Your task to perform on an android device: install app "Messenger Lite" Image 0: 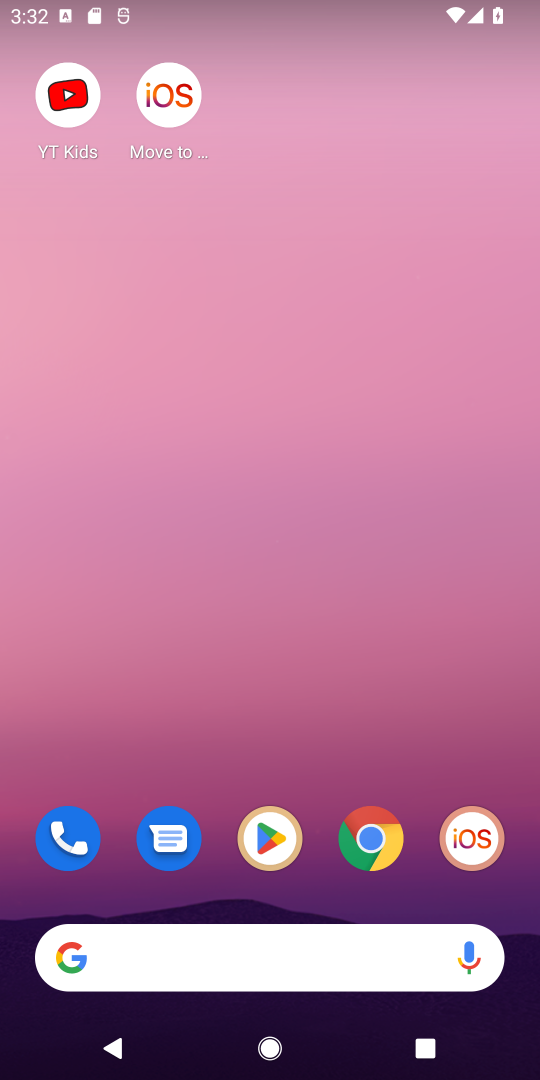
Step 0: press home button
Your task to perform on an android device: install app "Messenger Lite" Image 1: 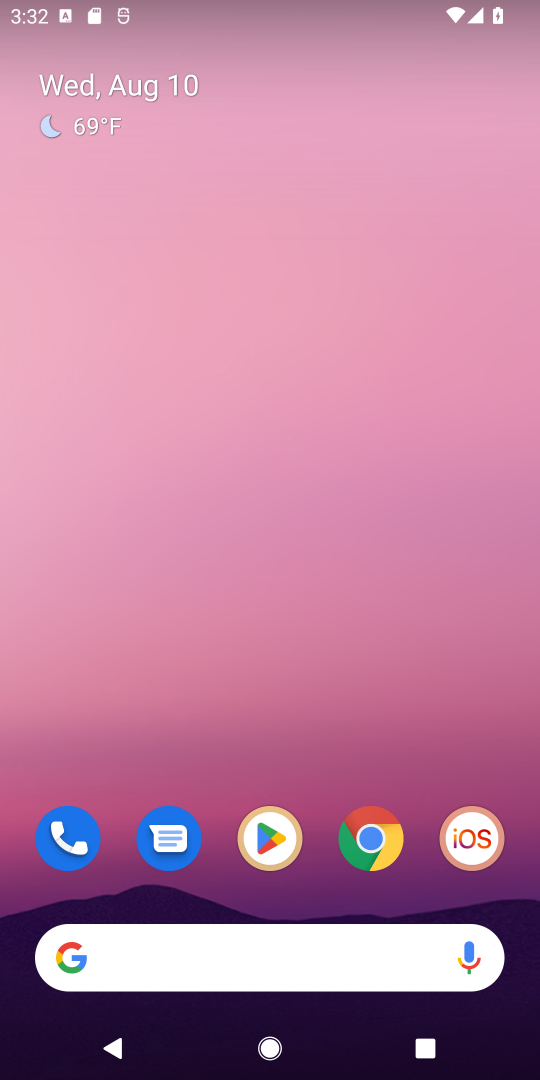
Step 1: click (270, 840)
Your task to perform on an android device: install app "Messenger Lite" Image 2: 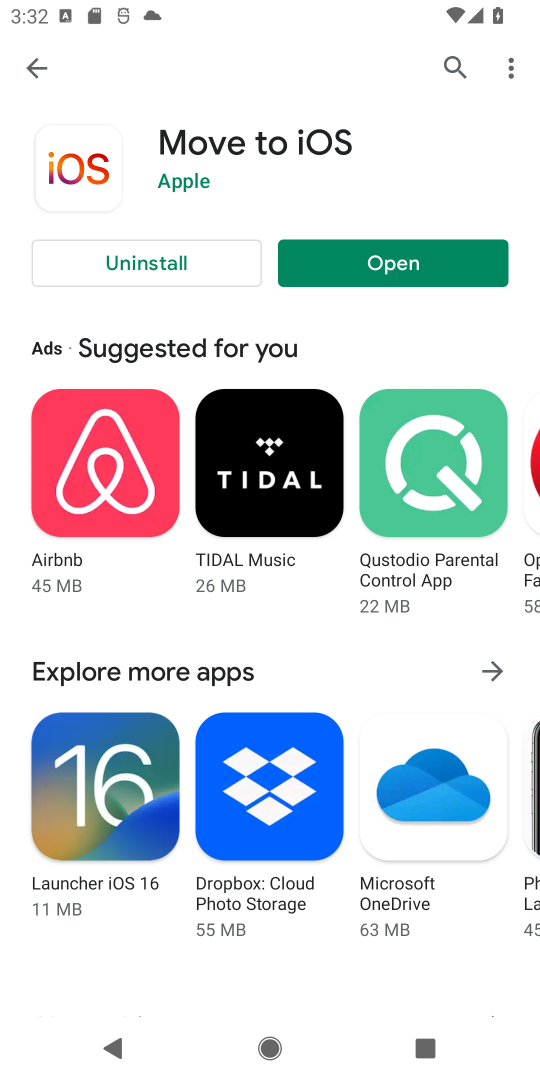
Step 2: click (456, 62)
Your task to perform on an android device: install app "Messenger Lite" Image 3: 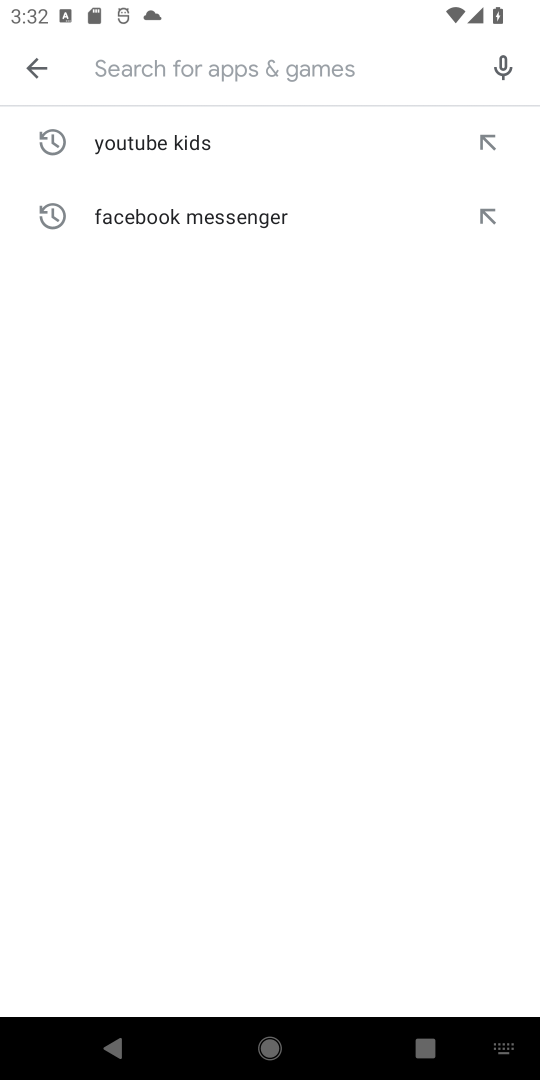
Step 3: type "Messenger Lite"
Your task to perform on an android device: install app "Messenger Lite" Image 4: 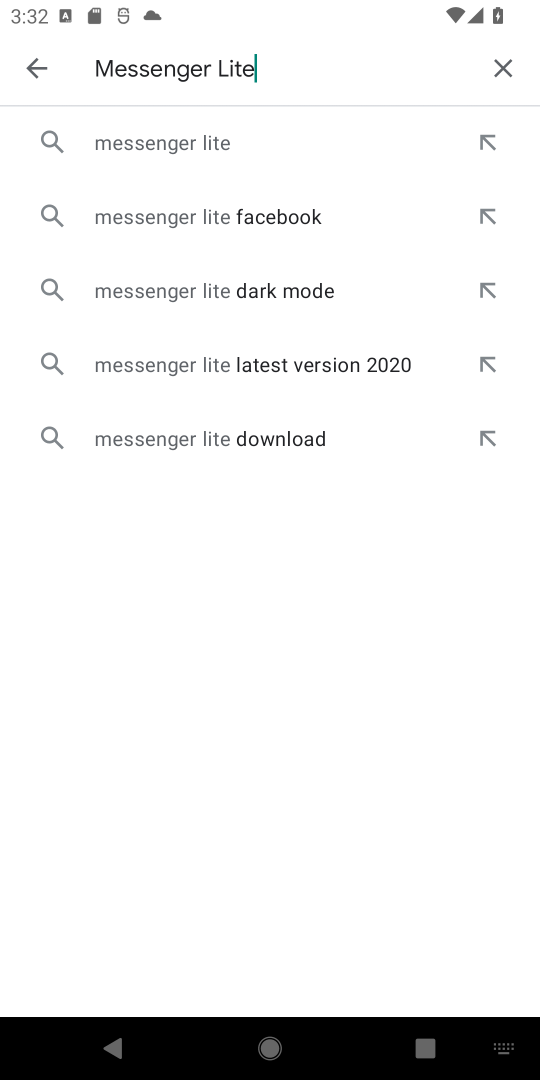
Step 4: click (177, 138)
Your task to perform on an android device: install app "Messenger Lite" Image 5: 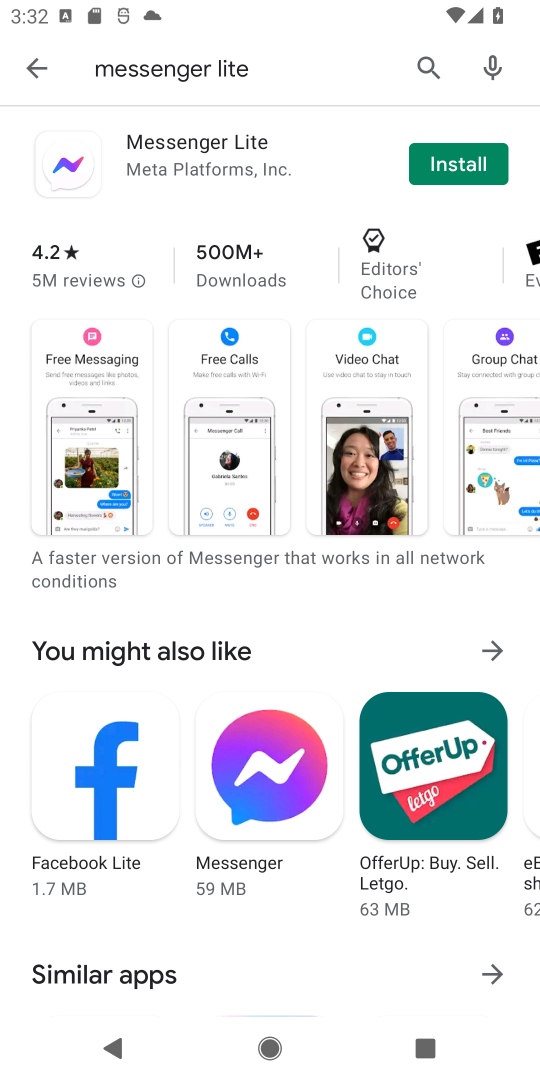
Step 5: click (446, 166)
Your task to perform on an android device: install app "Messenger Lite" Image 6: 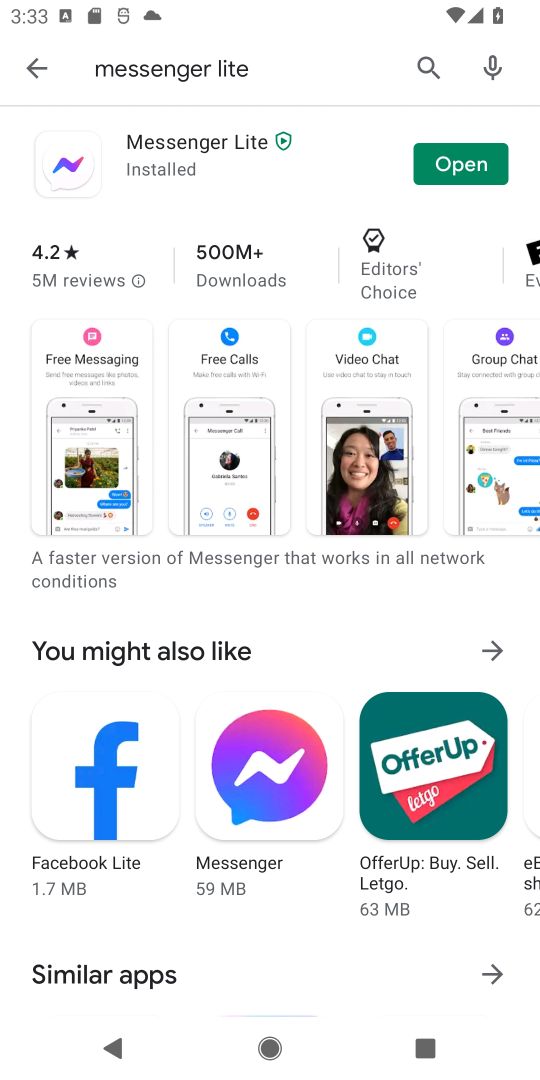
Step 6: task complete